Your task to perform on an android device: Check the weather Image 0: 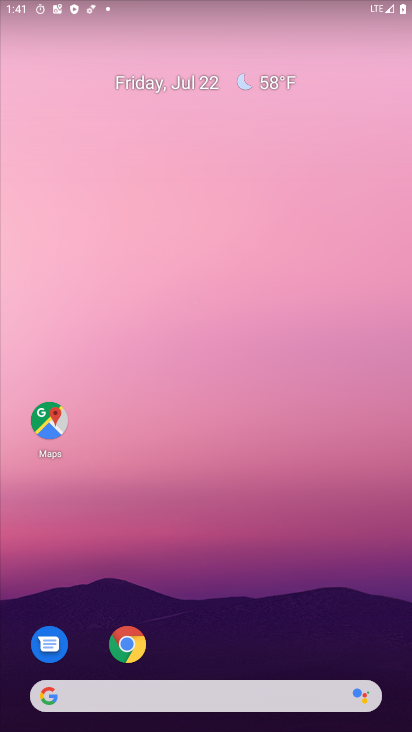
Step 0: drag from (213, 651) to (232, 221)
Your task to perform on an android device: Check the weather Image 1: 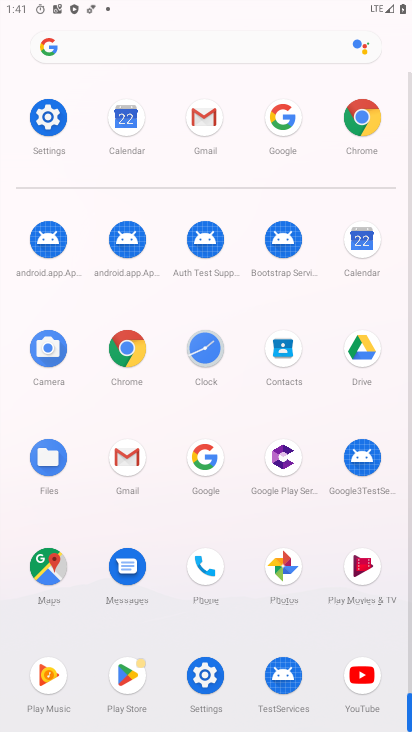
Step 1: click (177, 43)
Your task to perform on an android device: Check the weather Image 2: 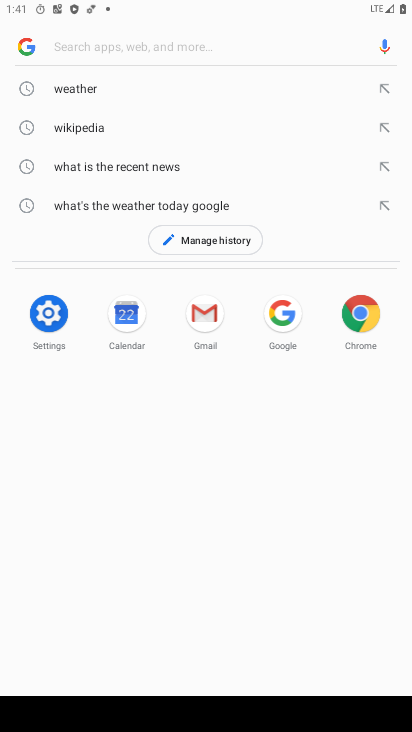
Step 2: click (99, 89)
Your task to perform on an android device: Check the weather Image 3: 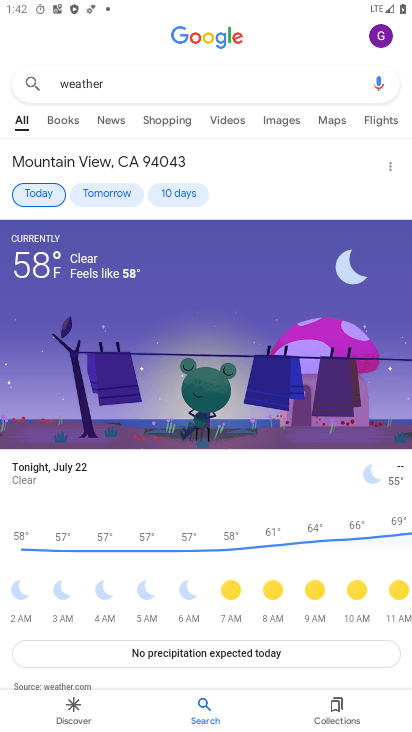
Step 3: task complete